Your task to perform on an android device: turn on improve location accuracy Image 0: 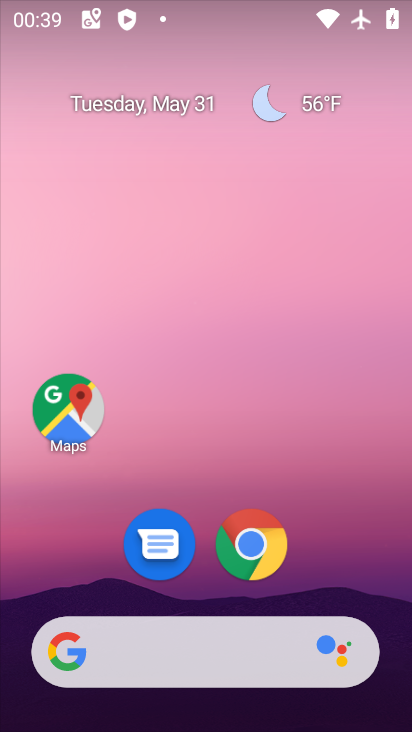
Step 0: drag from (282, 472) to (184, 72)
Your task to perform on an android device: turn on improve location accuracy Image 1: 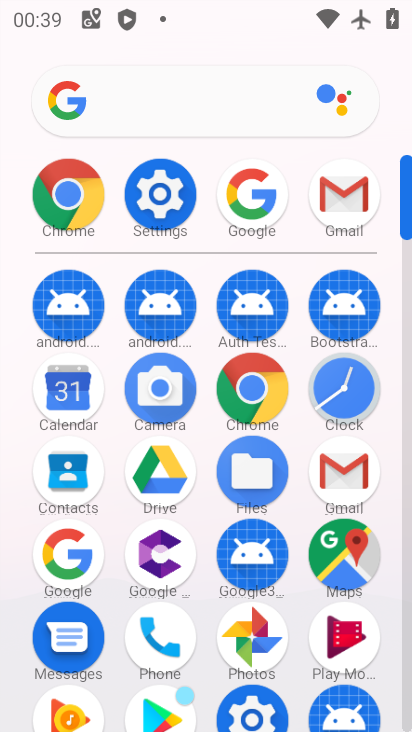
Step 1: click (164, 202)
Your task to perform on an android device: turn on improve location accuracy Image 2: 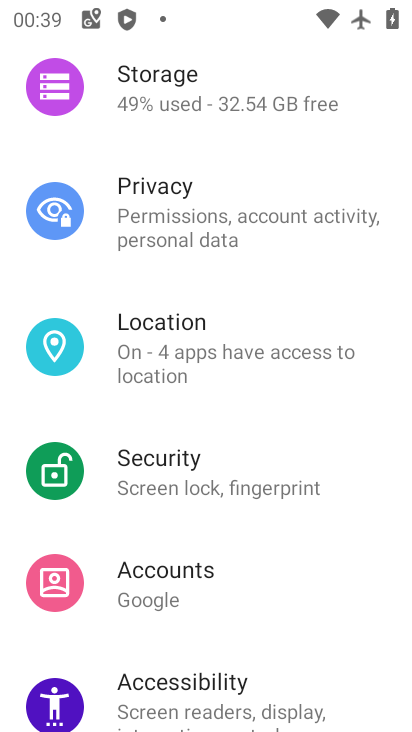
Step 2: click (168, 324)
Your task to perform on an android device: turn on improve location accuracy Image 3: 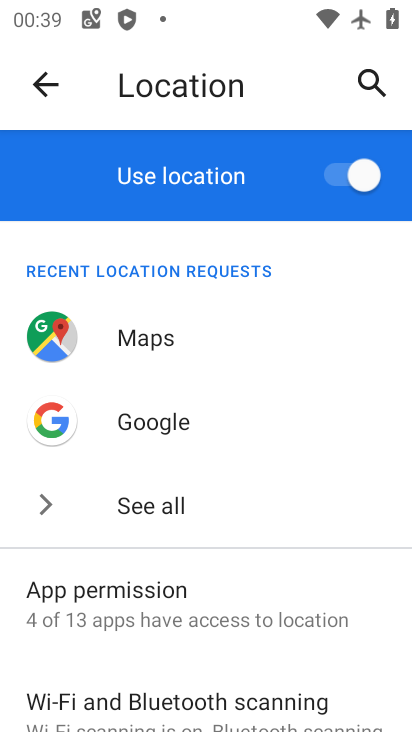
Step 3: drag from (136, 617) to (123, 383)
Your task to perform on an android device: turn on improve location accuracy Image 4: 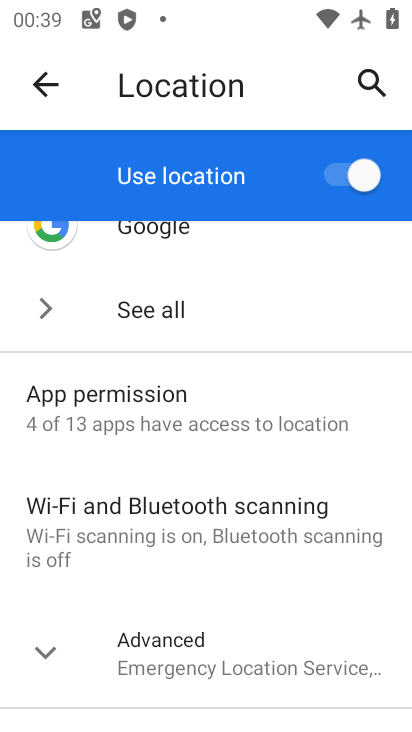
Step 4: click (45, 653)
Your task to perform on an android device: turn on improve location accuracy Image 5: 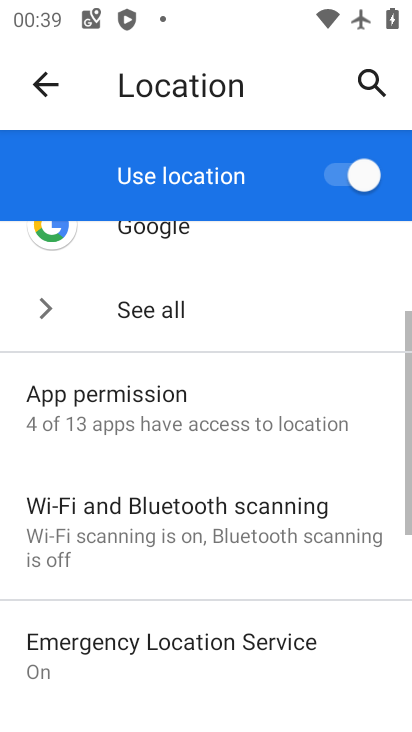
Step 5: drag from (249, 594) to (208, 342)
Your task to perform on an android device: turn on improve location accuracy Image 6: 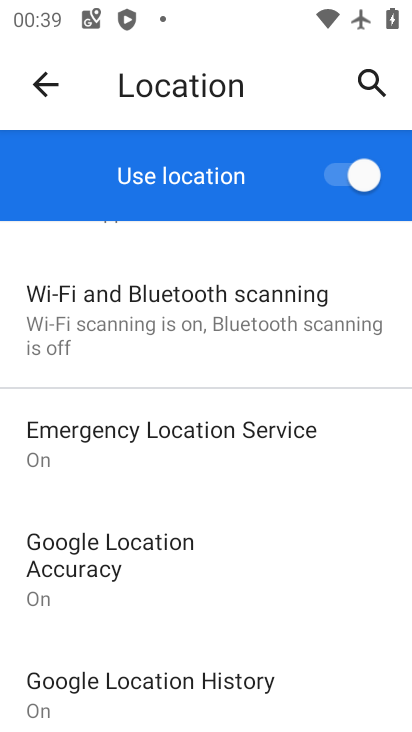
Step 6: click (86, 548)
Your task to perform on an android device: turn on improve location accuracy Image 7: 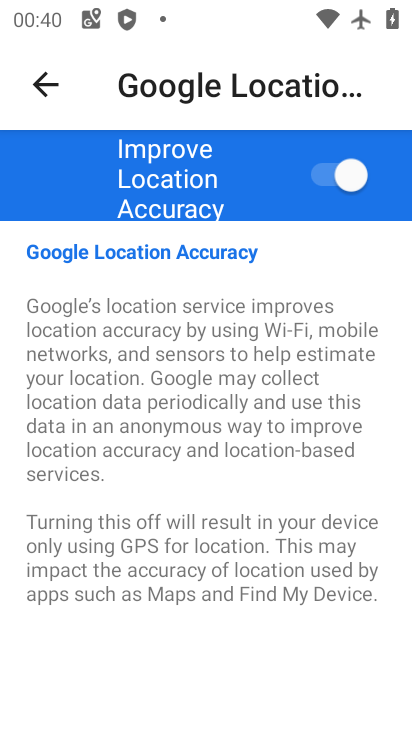
Step 7: task complete